Your task to perform on an android device: visit the assistant section in the google photos Image 0: 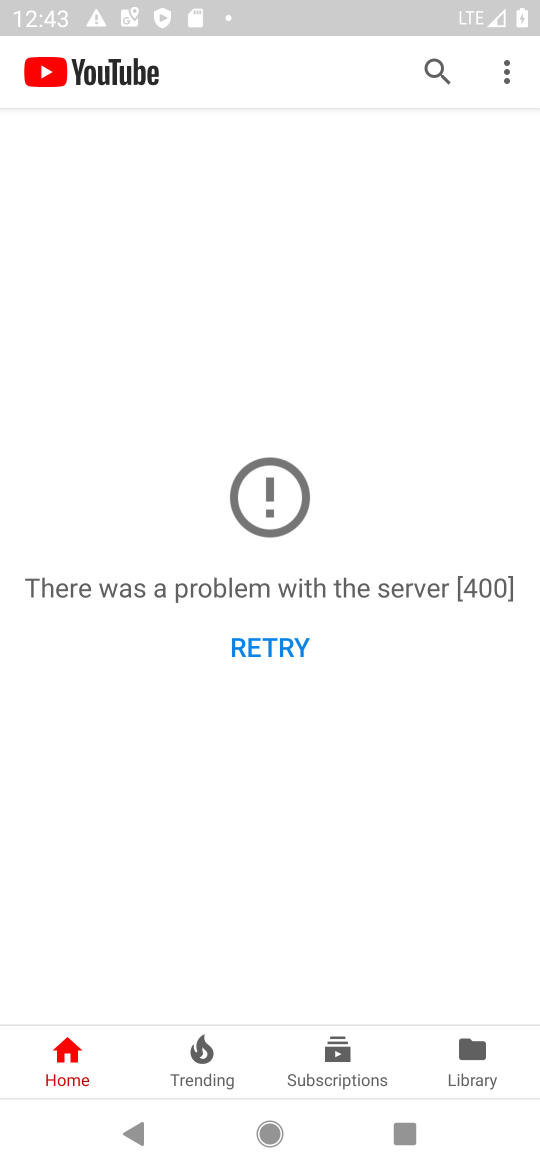
Step 0: press home button
Your task to perform on an android device: visit the assistant section in the google photos Image 1: 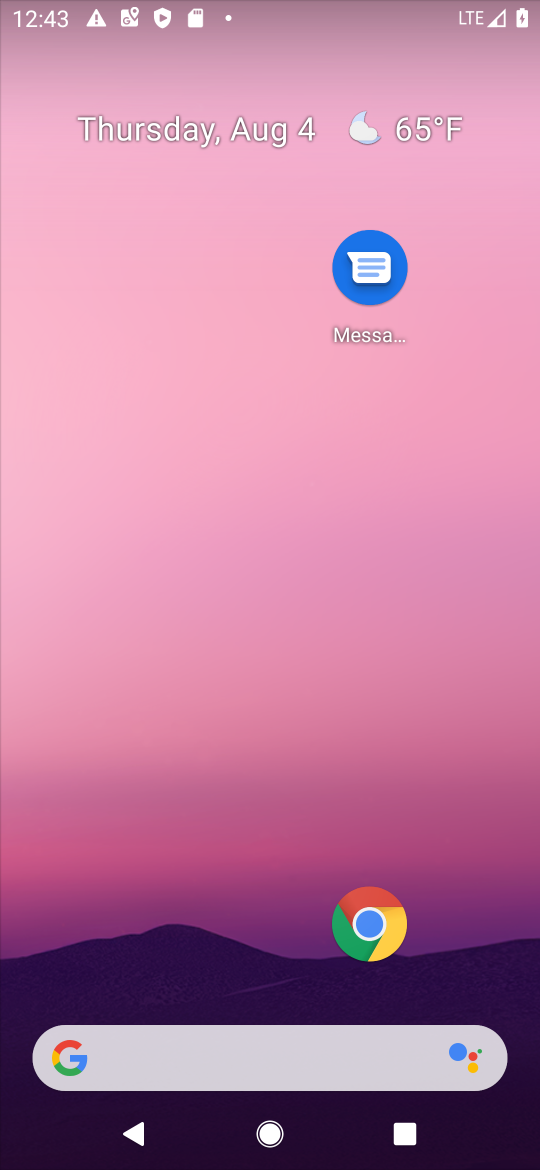
Step 1: drag from (277, 309) to (314, 90)
Your task to perform on an android device: visit the assistant section in the google photos Image 2: 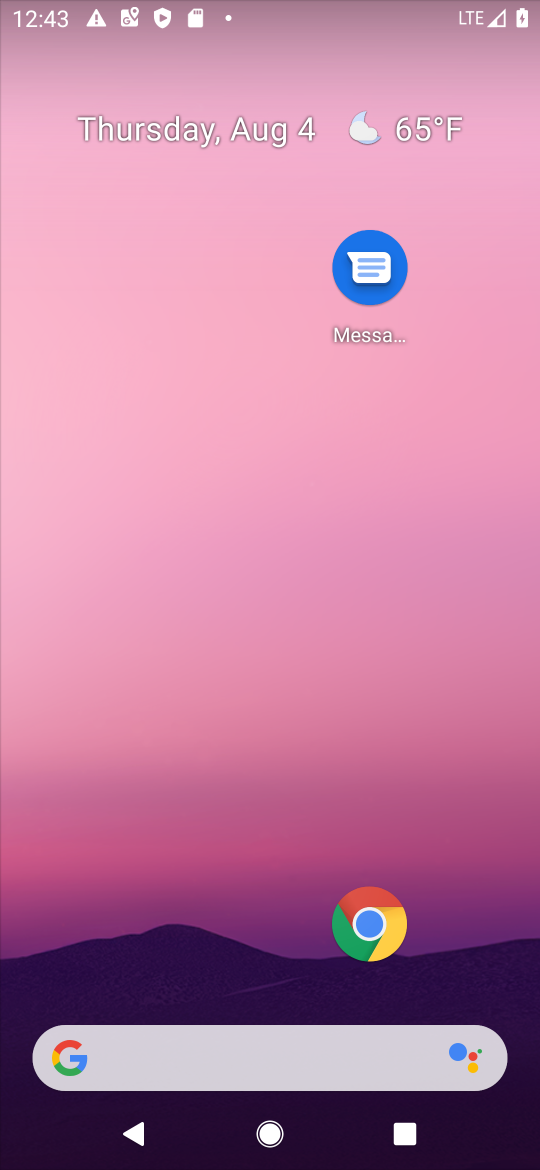
Step 2: drag from (148, 860) to (401, 46)
Your task to perform on an android device: visit the assistant section in the google photos Image 3: 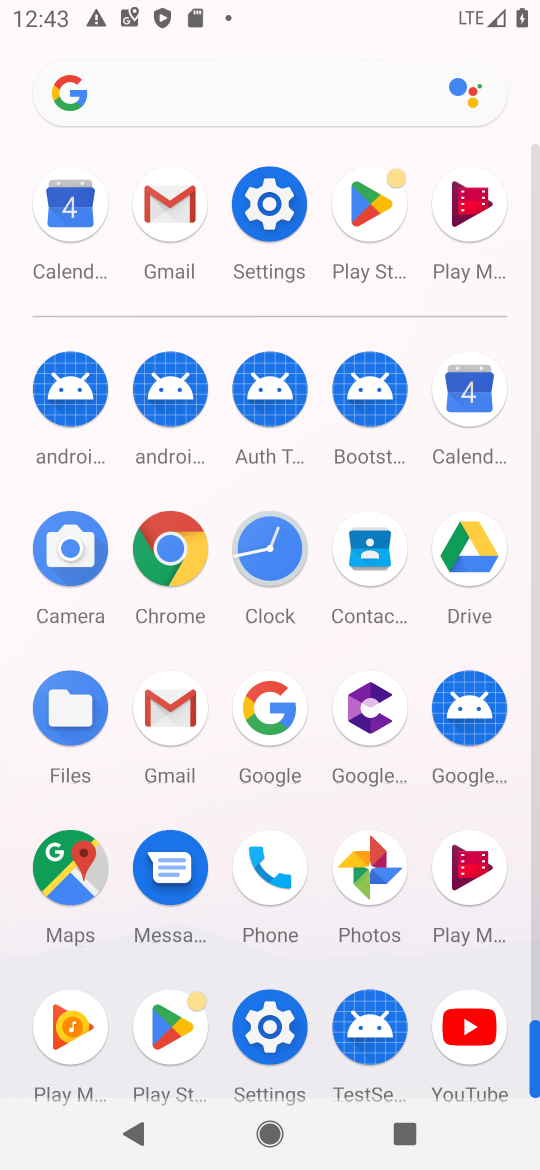
Step 3: click (364, 874)
Your task to perform on an android device: visit the assistant section in the google photos Image 4: 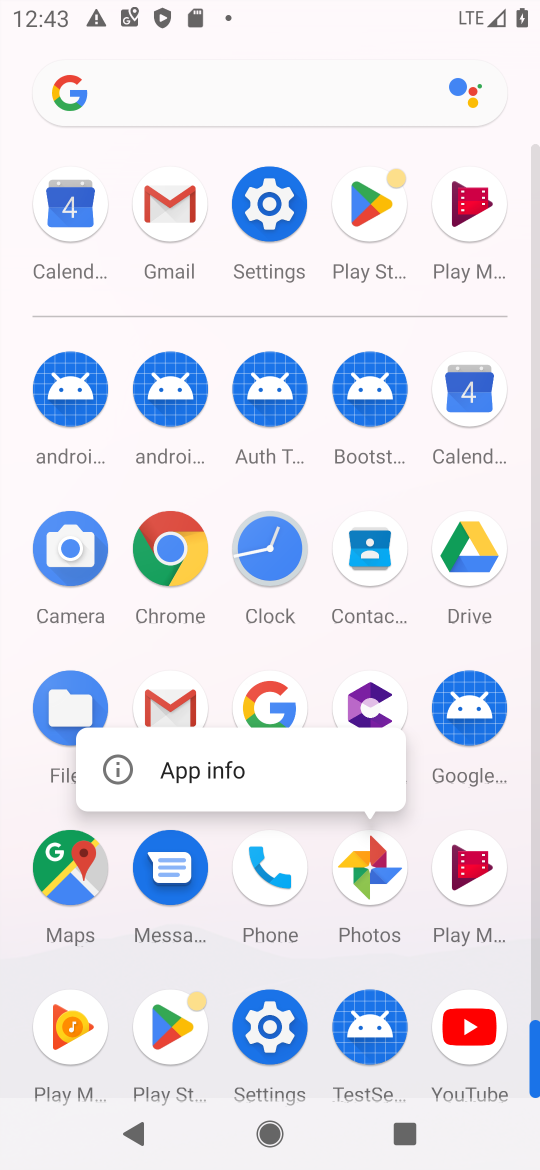
Step 4: click (365, 876)
Your task to perform on an android device: visit the assistant section in the google photos Image 5: 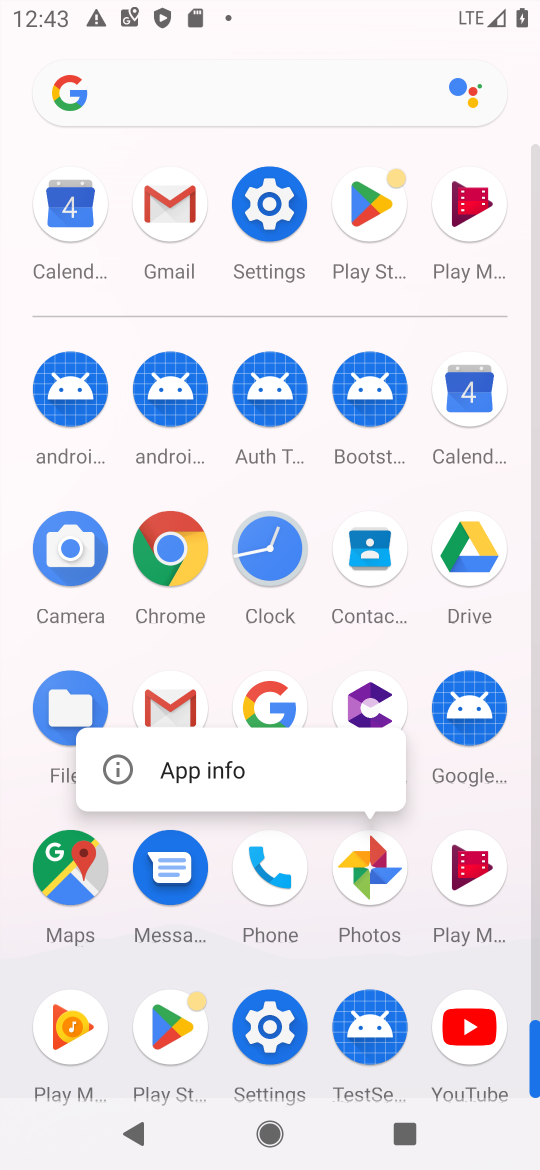
Step 5: click (366, 889)
Your task to perform on an android device: visit the assistant section in the google photos Image 6: 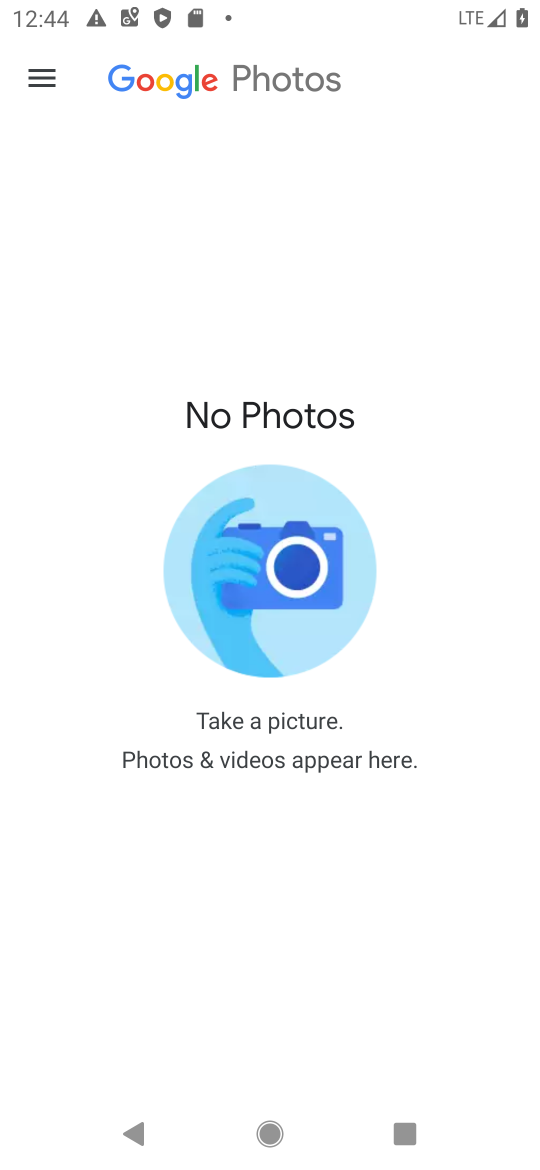
Step 6: task complete